Your task to perform on an android device: Open settings Image 0: 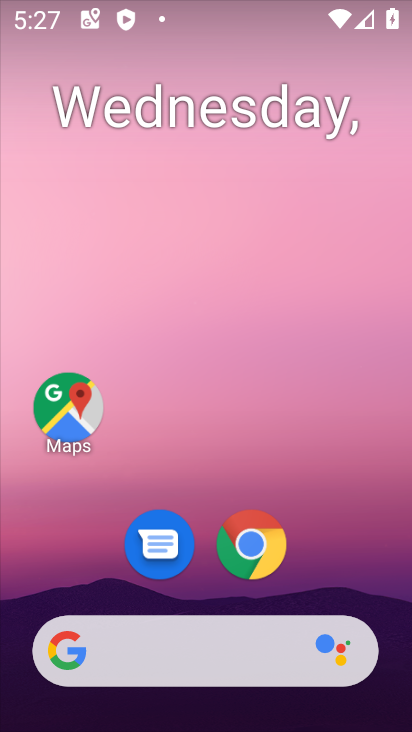
Step 0: drag from (393, 703) to (266, 148)
Your task to perform on an android device: Open settings Image 1: 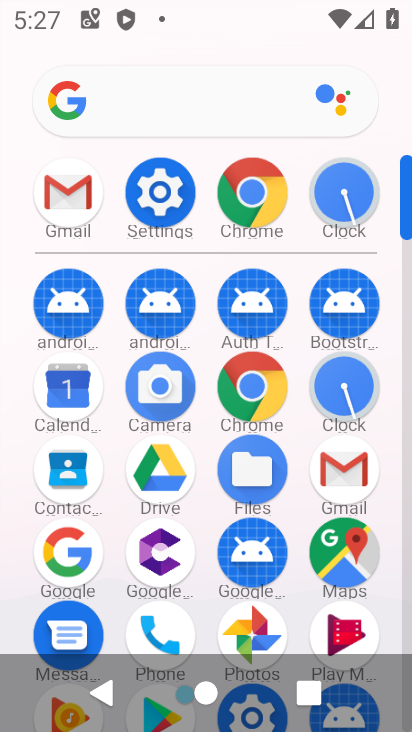
Step 1: click (177, 176)
Your task to perform on an android device: Open settings Image 2: 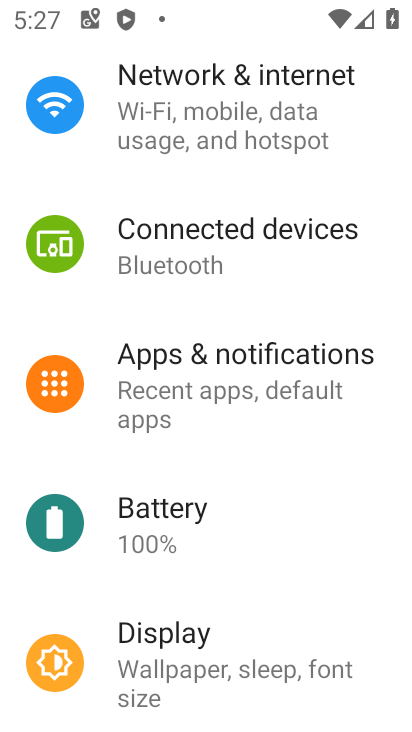
Step 2: task complete